Your task to perform on an android device: Open Maps and search for coffee Image 0: 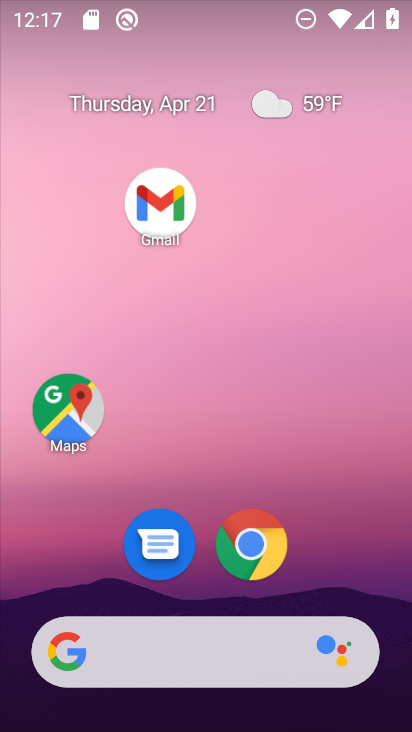
Step 0: click (59, 391)
Your task to perform on an android device: Open Maps and search for coffee Image 1: 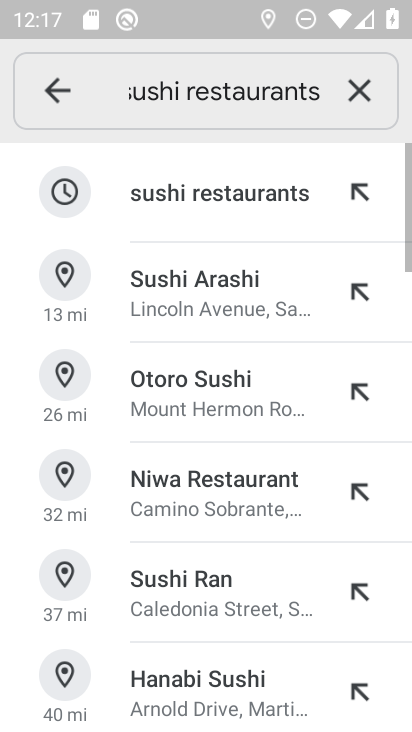
Step 1: click (371, 88)
Your task to perform on an android device: Open Maps and search for coffee Image 2: 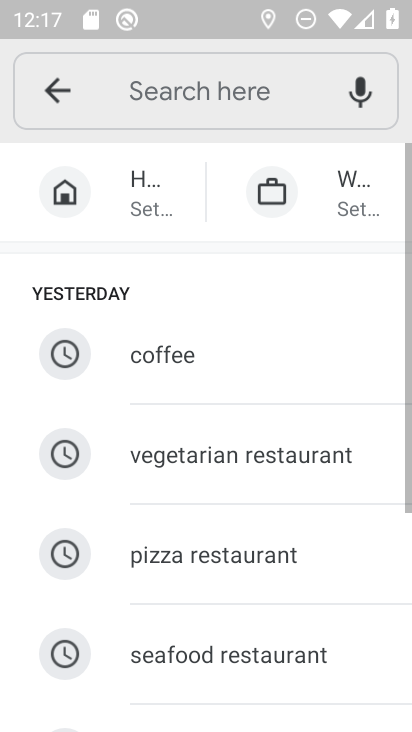
Step 2: click (202, 98)
Your task to perform on an android device: Open Maps and search for coffee Image 3: 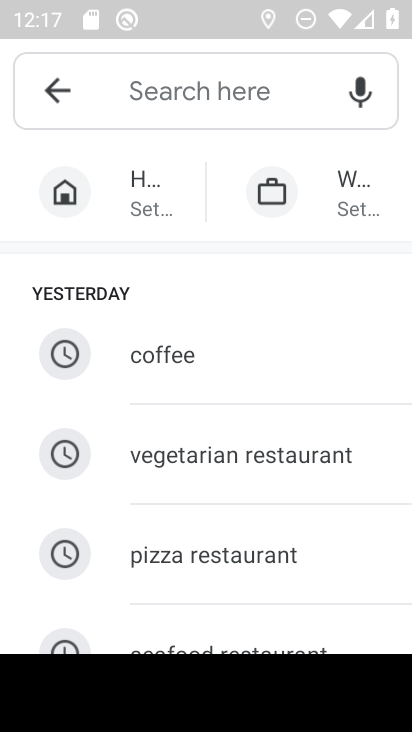
Step 3: type "coffee"
Your task to perform on an android device: Open Maps and search for coffee Image 4: 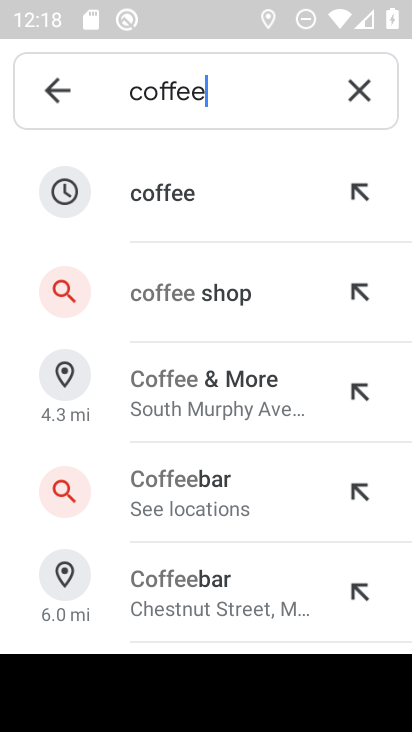
Step 4: task complete